Your task to perform on an android device: Go to CNN.com Image 0: 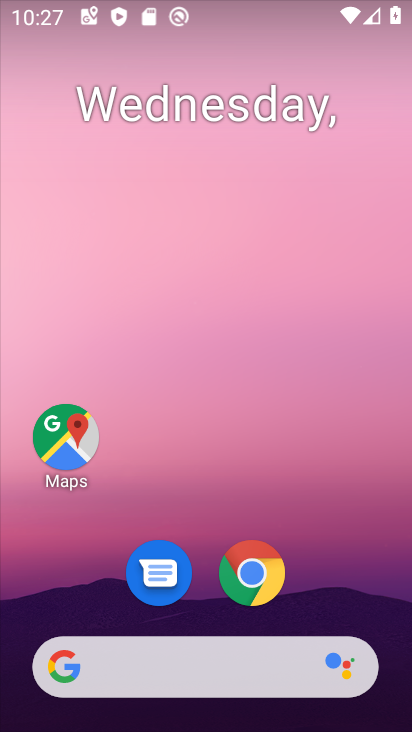
Step 0: drag from (197, 626) to (193, 144)
Your task to perform on an android device: Go to CNN.com Image 1: 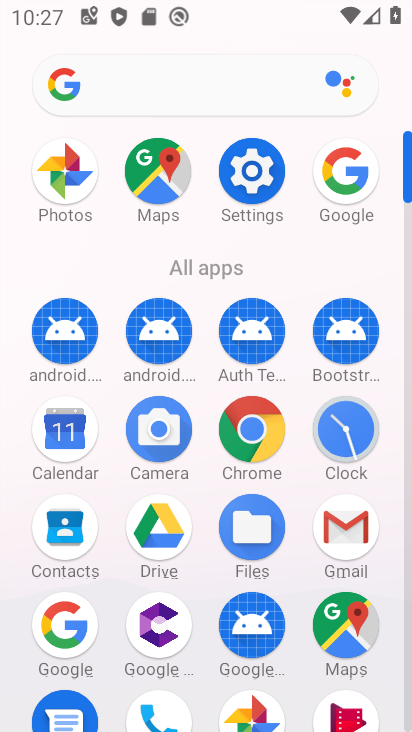
Step 1: click (54, 626)
Your task to perform on an android device: Go to CNN.com Image 2: 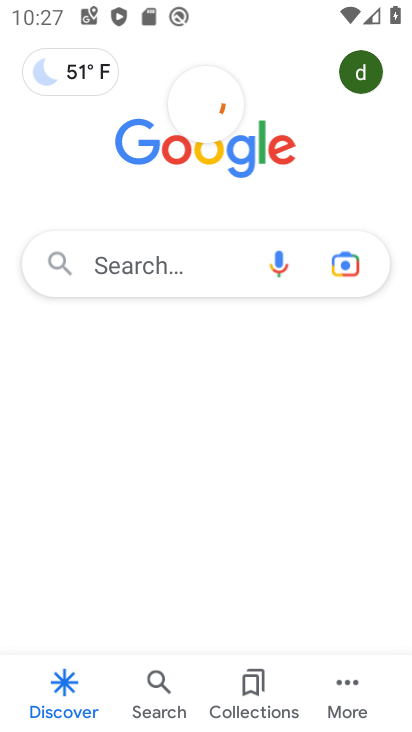
Step 2: click (91, 269)
Your task to perform on an android device: Go to CNN.com Image 3: 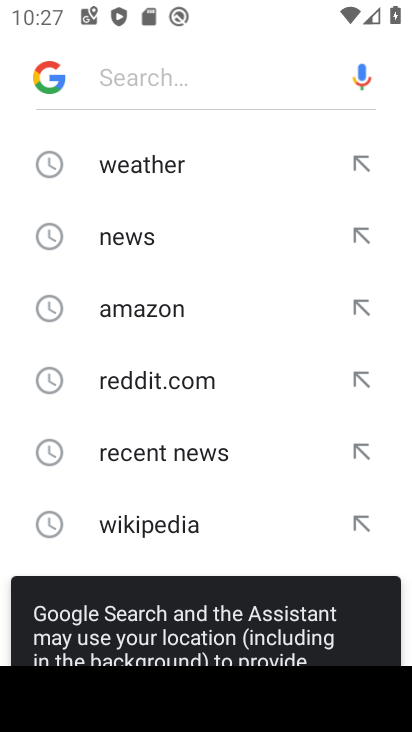
Step 3: drag from (179, 492) to (206, 204)
Your task to perform on an android device: Go to CNN.com Image 4: 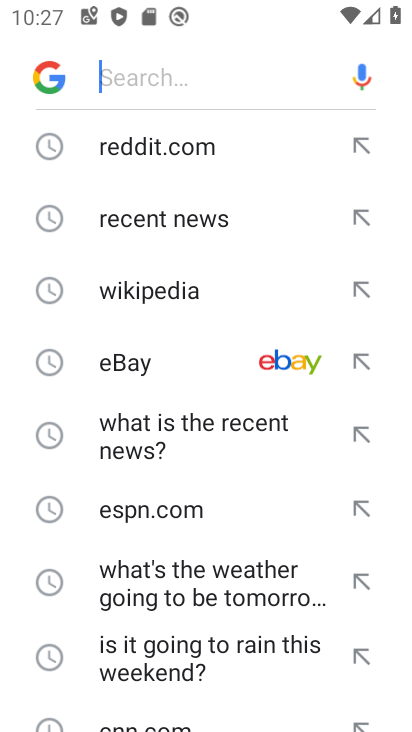
Step 4: drag from (152, 570) to (174, 232)
Your task to perform on an android device: Go to CNN.com Image 5: 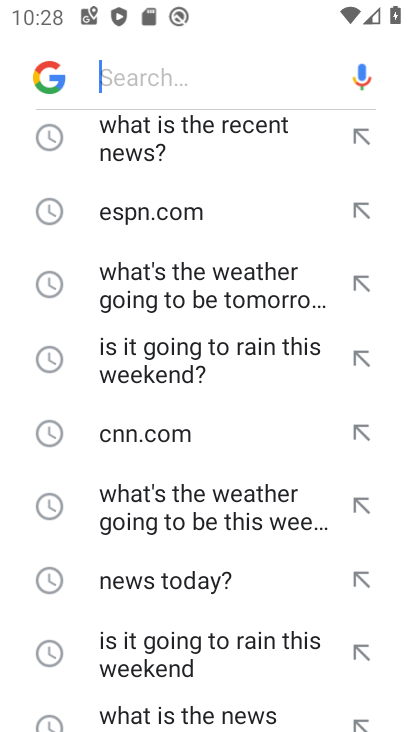
Step 5: click (139, 448)
Your task to perform on an android device: Go to CNN.com Image 6: 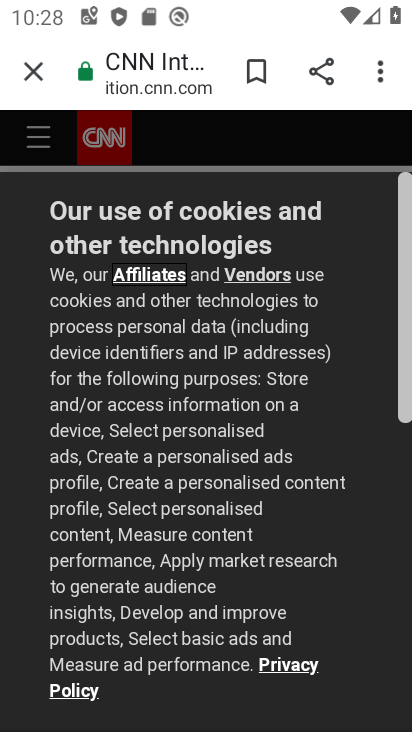
Step 6: task complete